Your task to perform on an android device: Go to wifi settings Image 0: 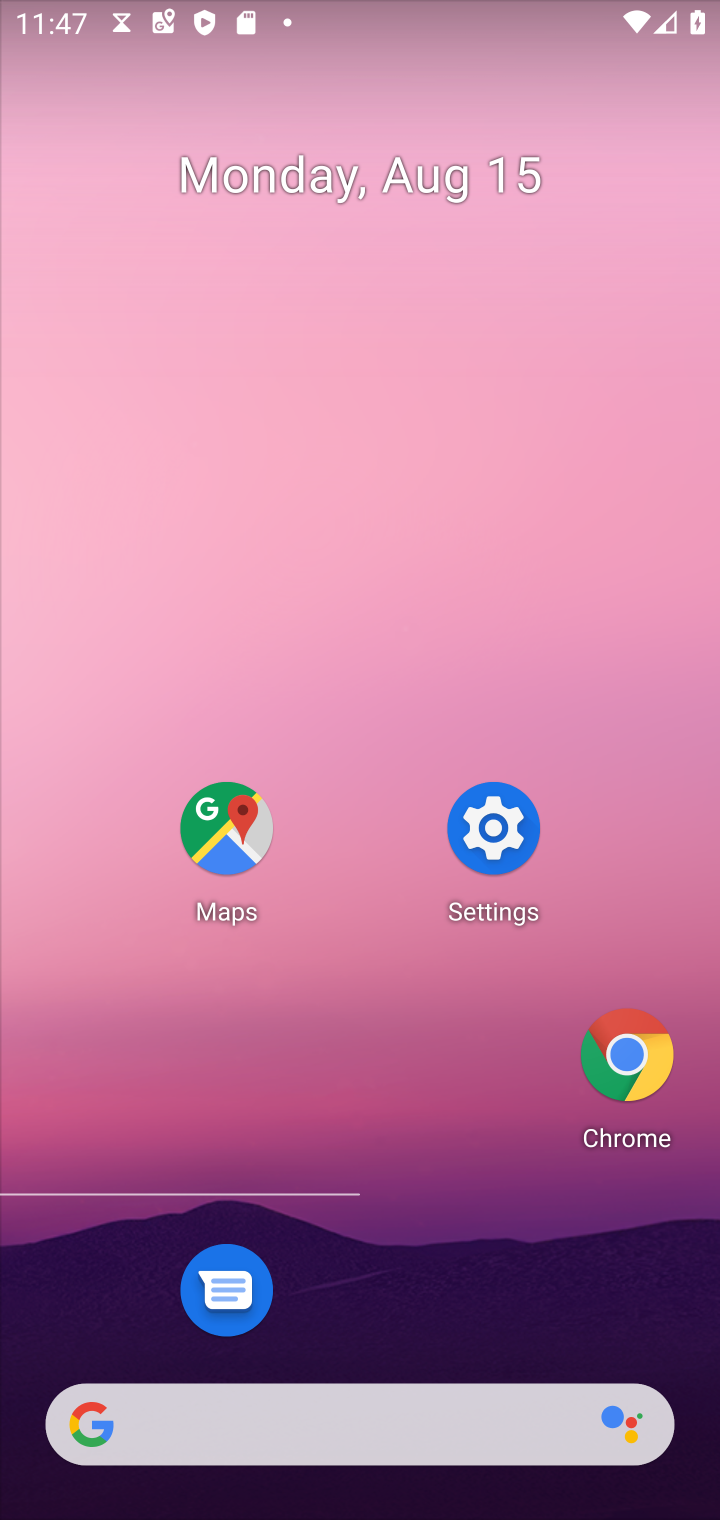
Step 0: press home button
Your task to perform on an android device: Go to wifi settings Image 1: 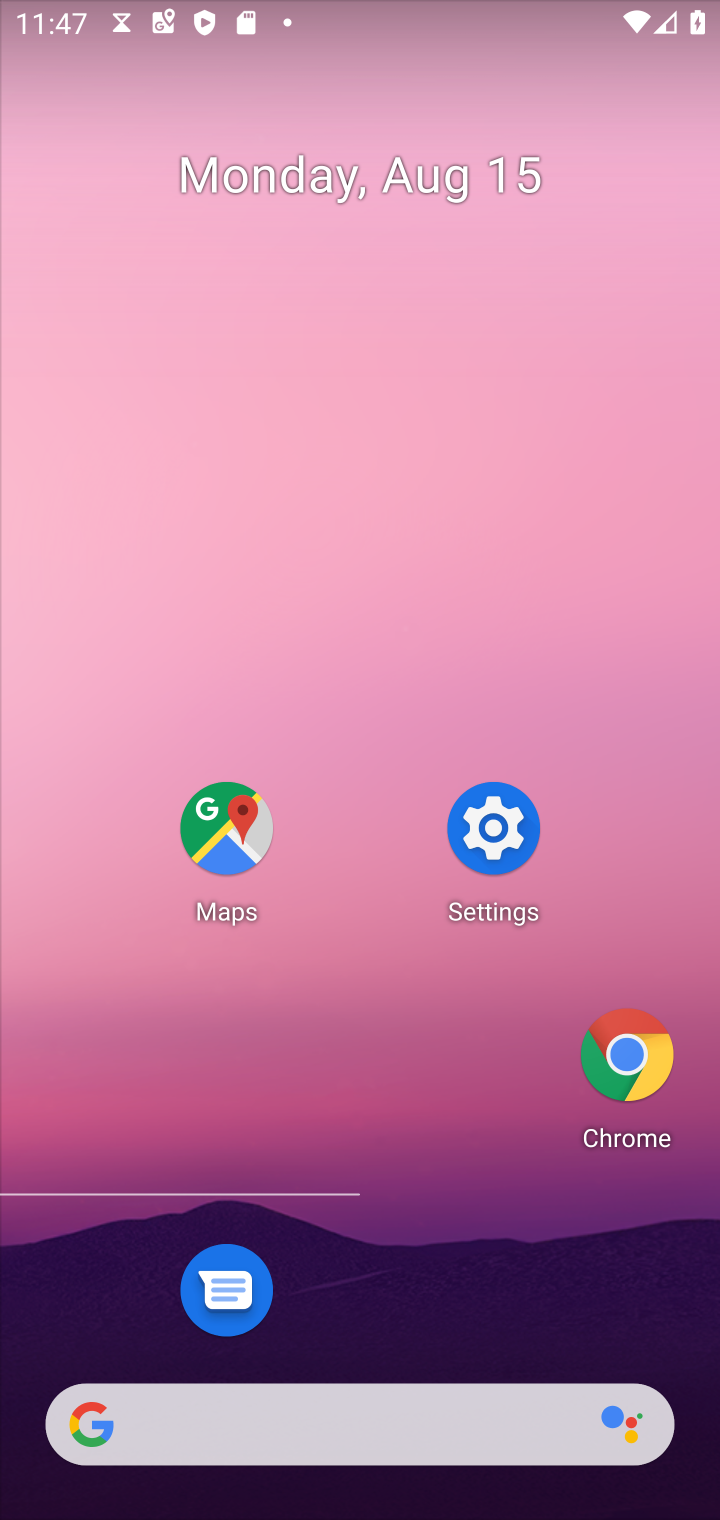
Step 1: click (498, 814)
Your task to perform on an android device: Go to wifi settings Image 2: 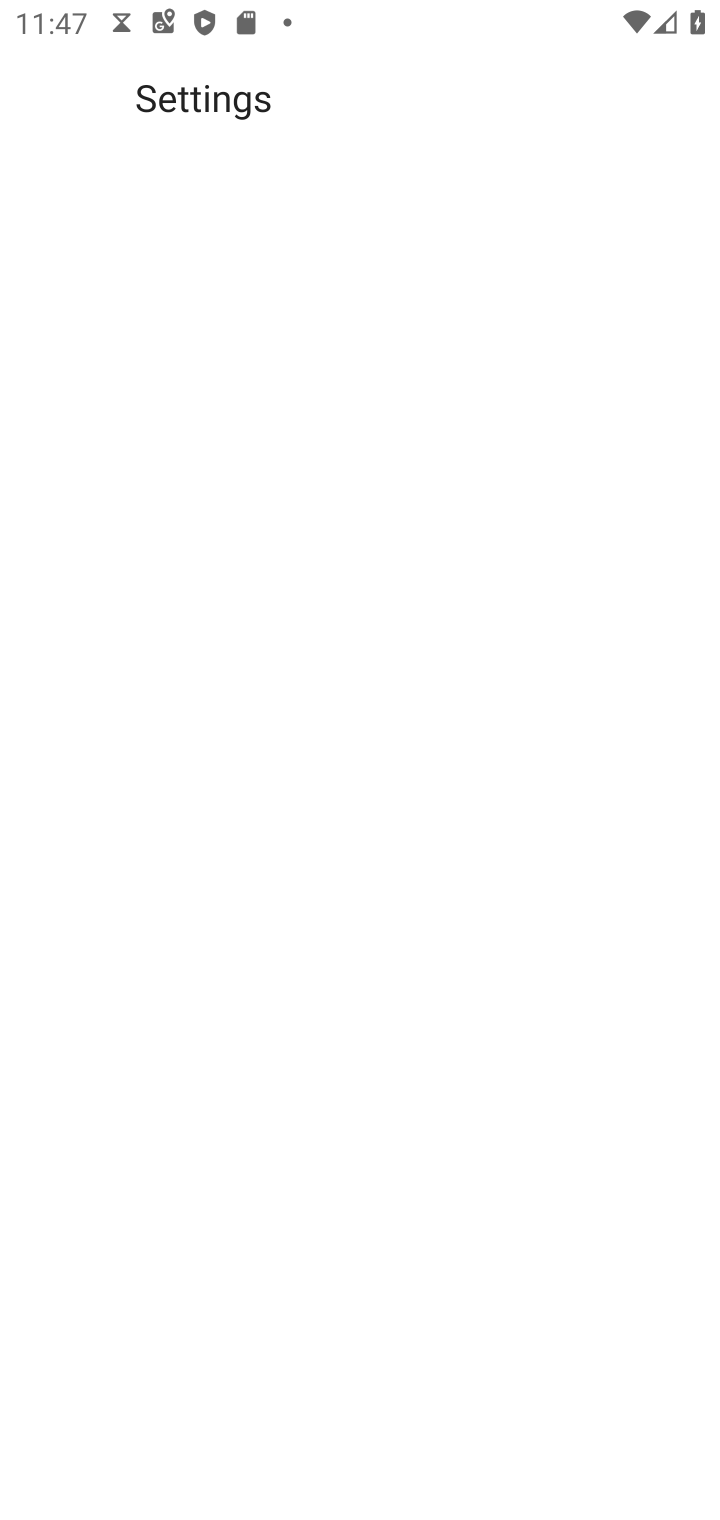
Step 2: click (498, 816)
Your task to perform on an android device: Go to wifi settings Image 3: 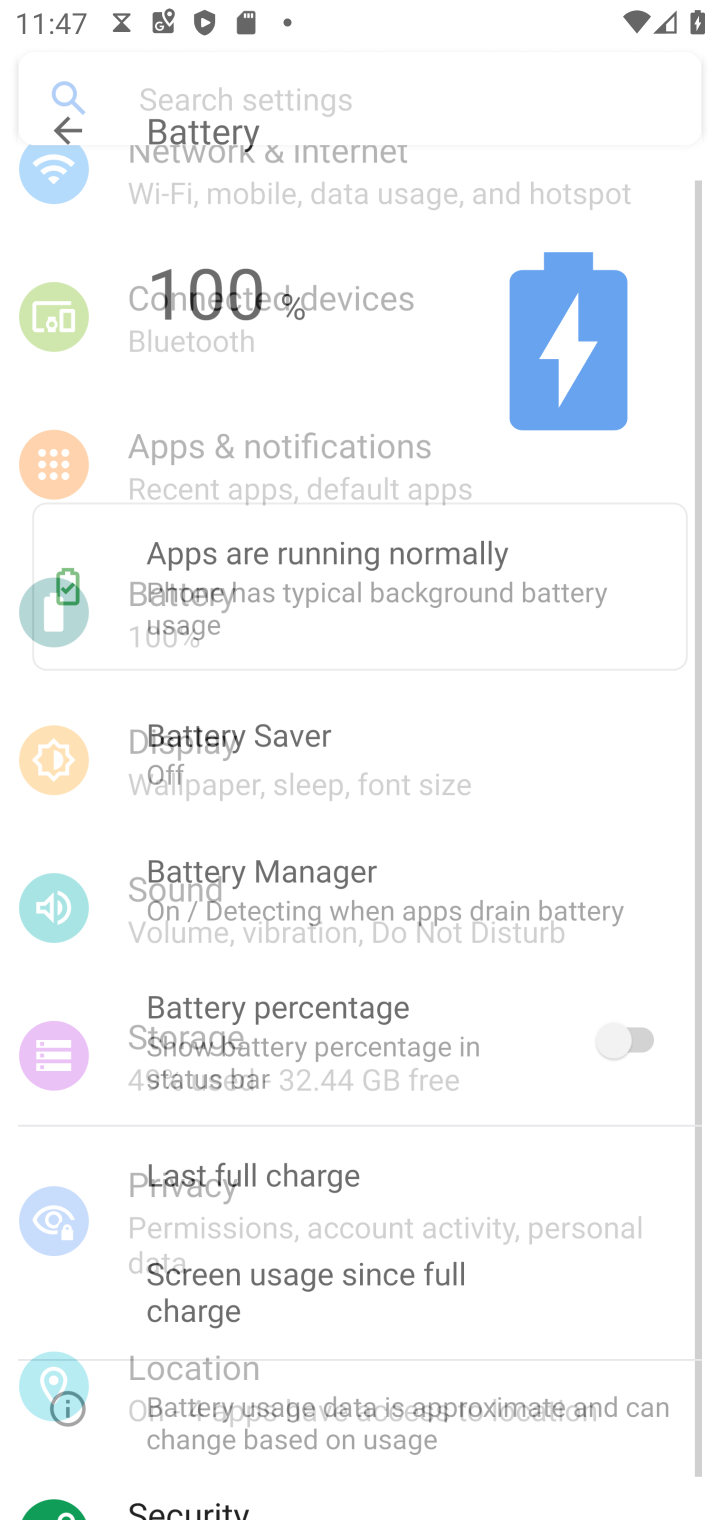
Step 3: drag from (608, 348) to (535, 1248)
Your task to perform on an android device: Go to wifi settings Image 4: 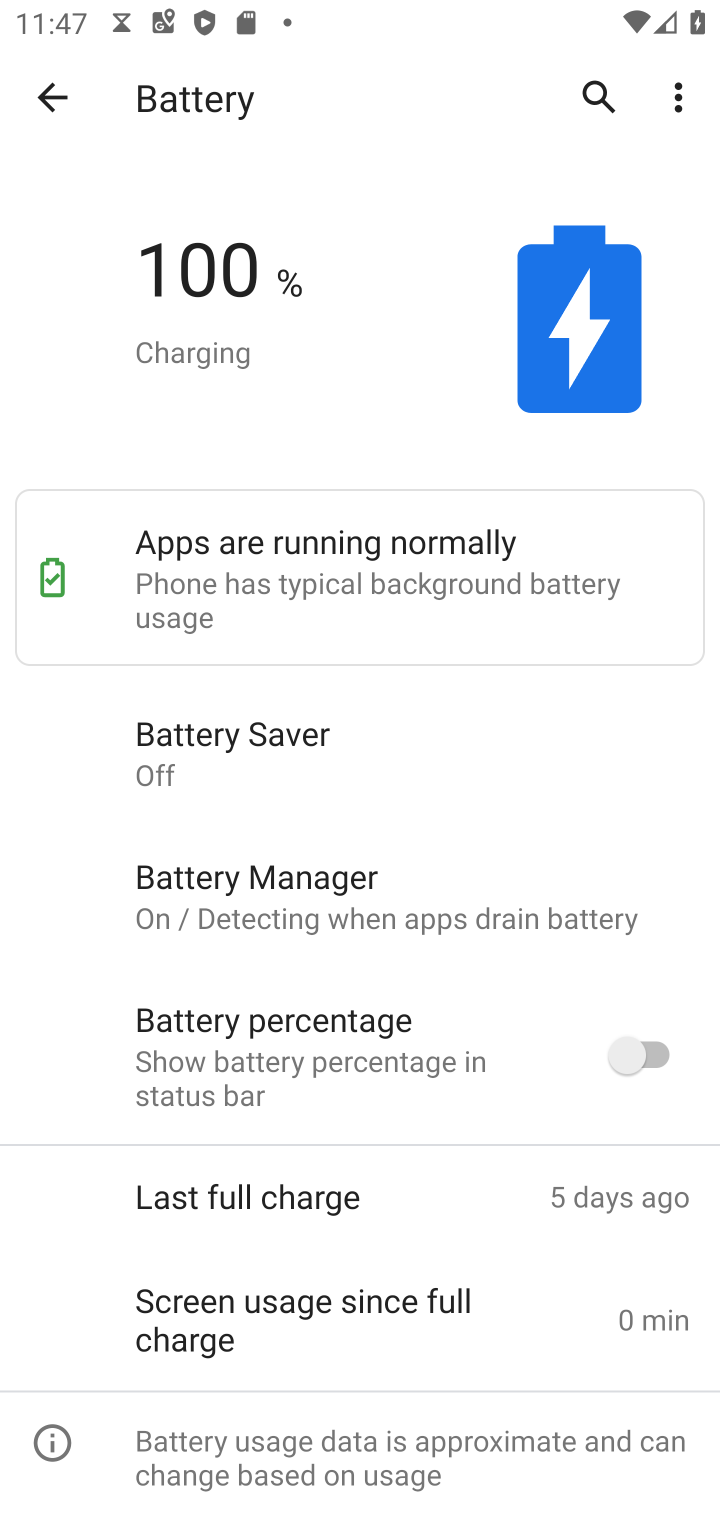
Step 4: press back button
Your task to perform on an android device: Go to wifi settings Image 5: 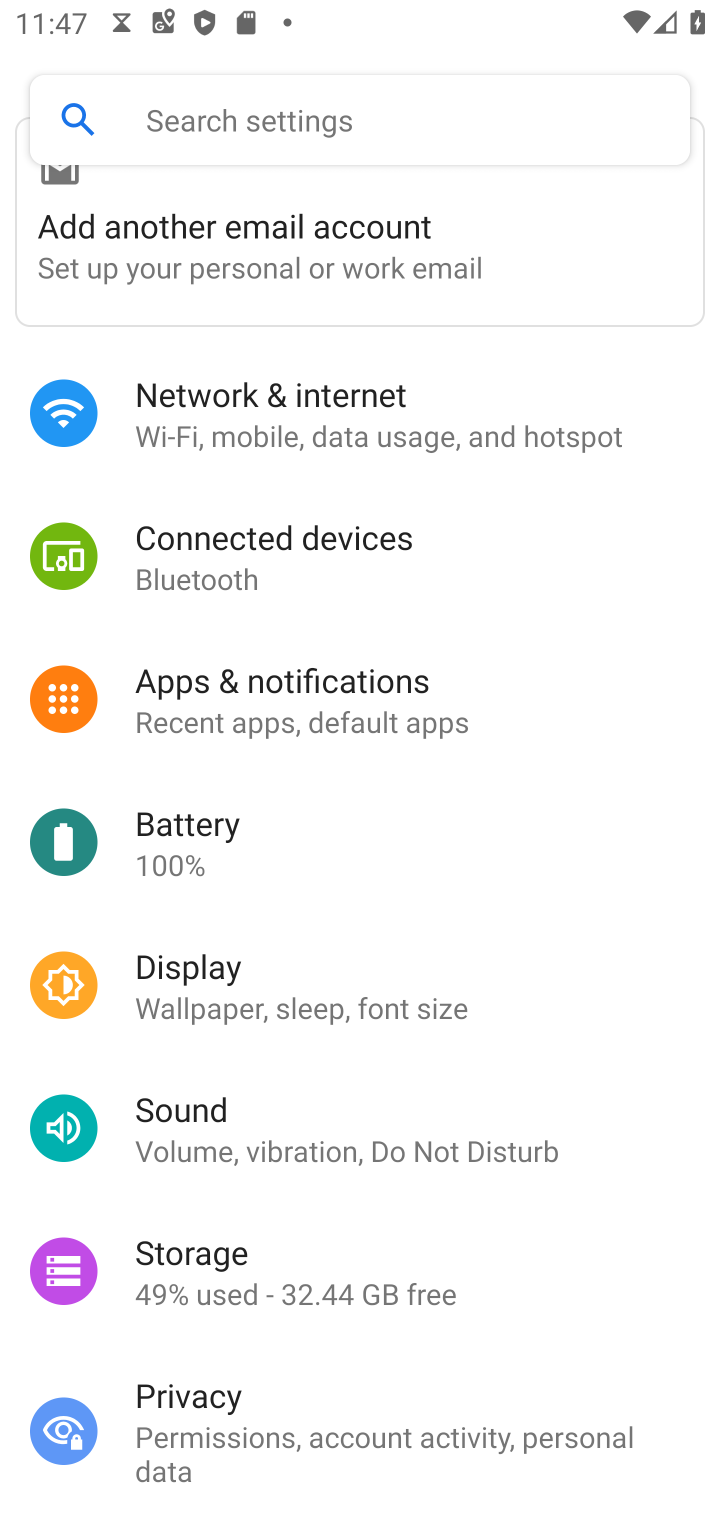
Step 5: click (315, 400)
Your task to perform on an android device: Go to wifi settings Image 6: 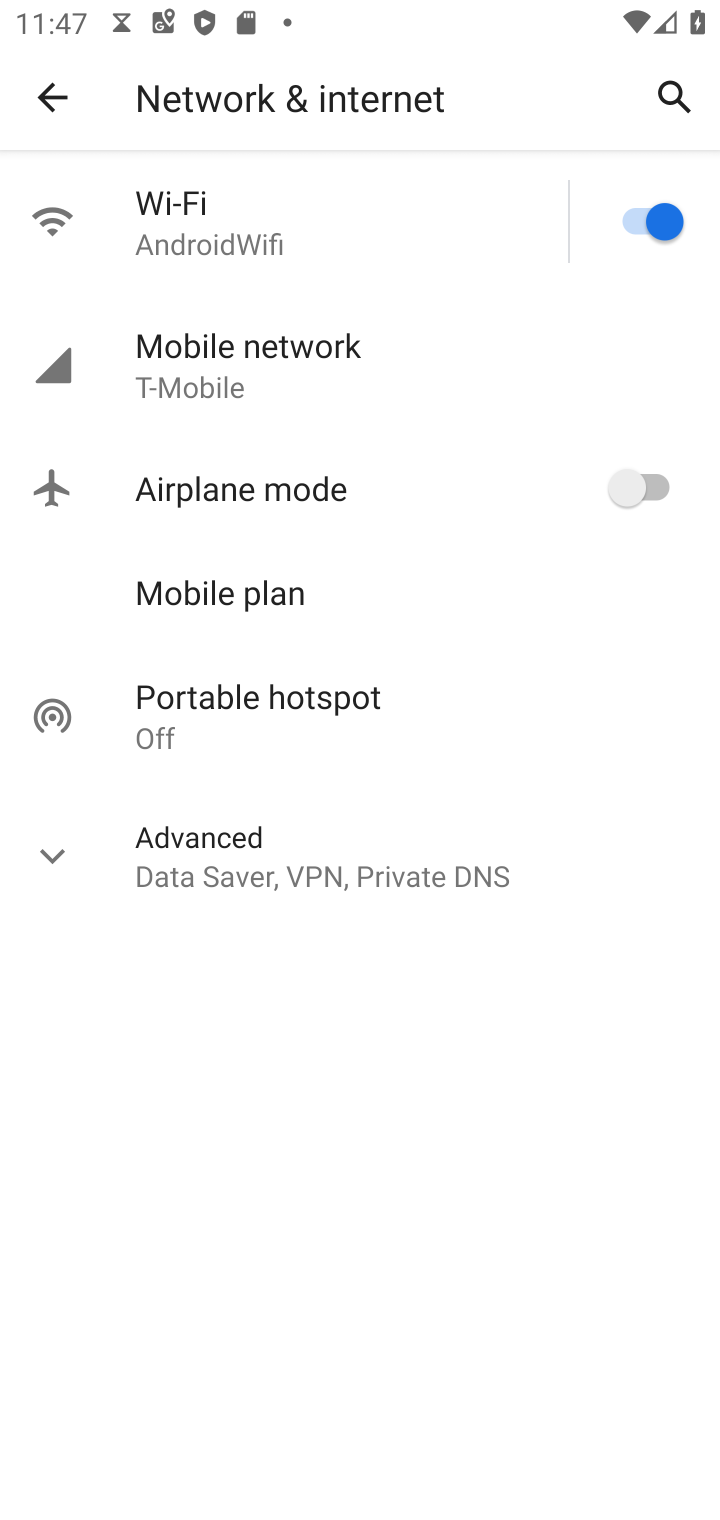
Step 6: click (201, 255)
Your task to perform on an android device: Go to wifi settings Image 7: 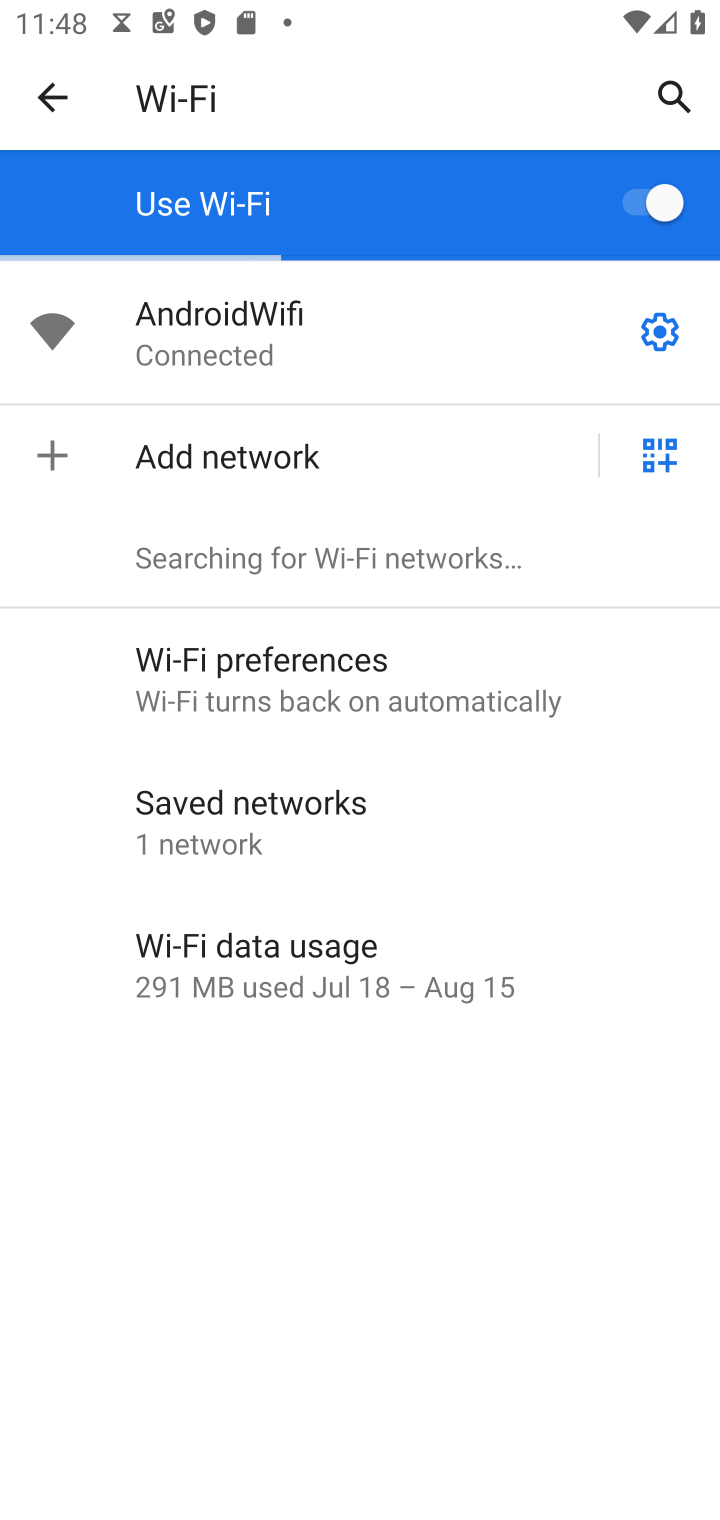
Step 7: task complete